Your task to perform on an android device: Search for sushi restaurants on Maps Image 0: 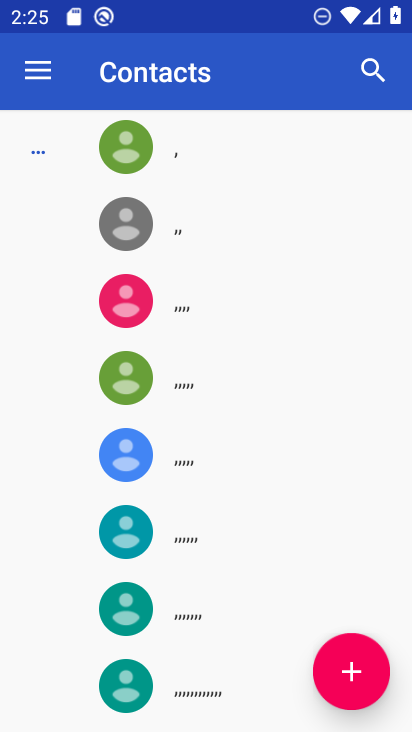
Step 0: press back button
Your task to perform on an android device: Search for sushi restaurants on Maps Image 1: 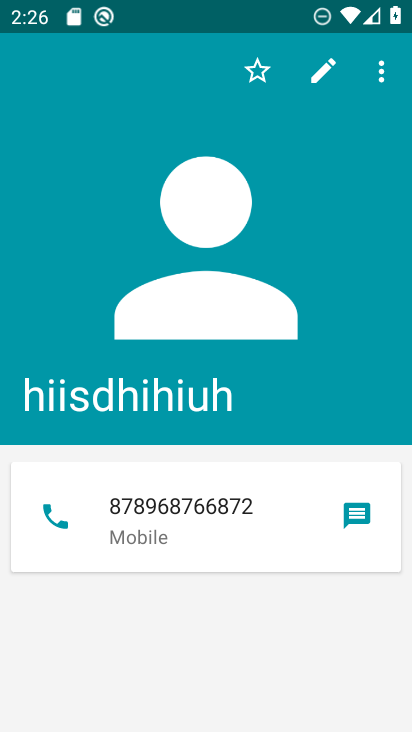
Step 1: press home button
Your task to perform on an android device: Search for sushi restaurants on Maps Image 2: 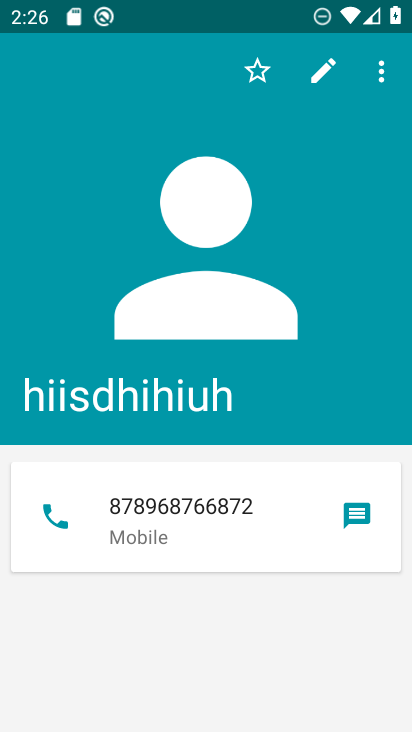
Step 2: press home button
Your task to perform on an android device: Search for sushi restaurants on Maps Image 3: 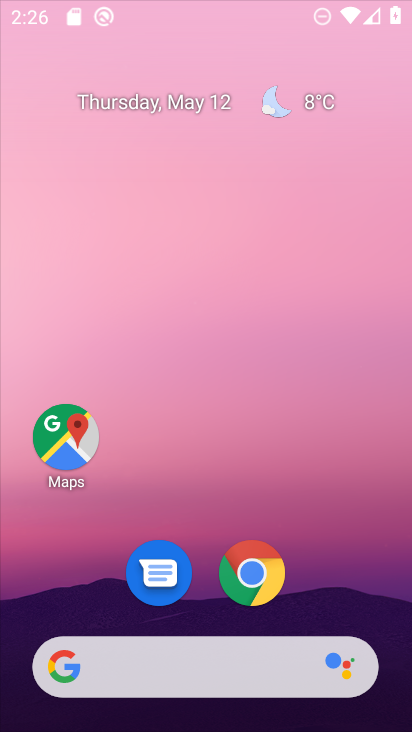
Step 3: press home button
Your task to perform on an android device: Search for sushi restaurants on Maps Image 4: 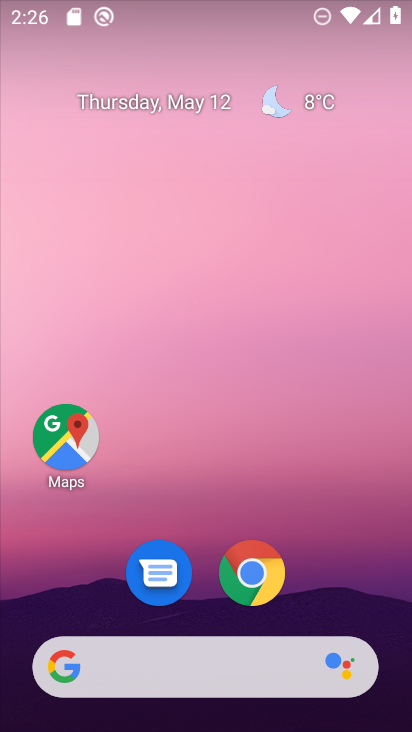
Step 4: drag from (333, 606) to (78, 4)
Your task to perform on an android device: Search for sushi restaurants on Maps Image 5: 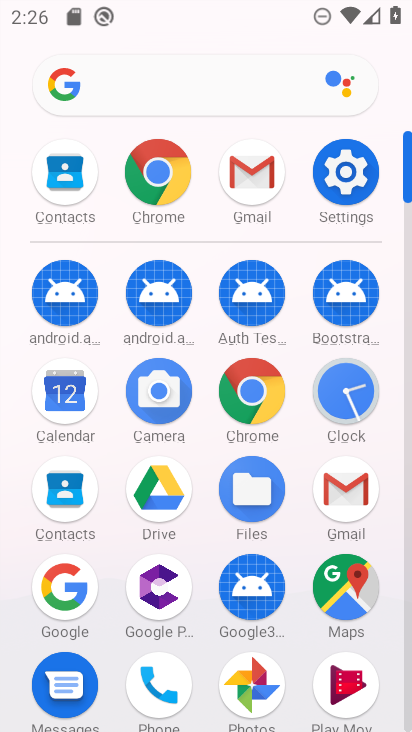
Step 5: click (351, 596)
Your task to perform on an android device: Search for sushi restaurants on Maps Image 6: 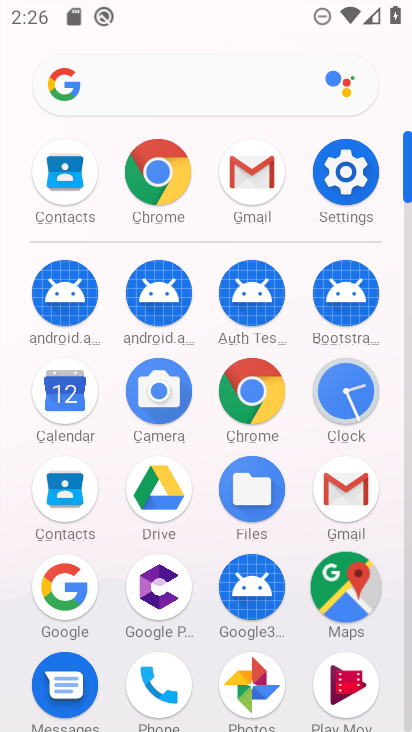
Step 6: click (349, 598)
Your task to perform on an android device: Search for sushi restaurants on Maps Image 7: 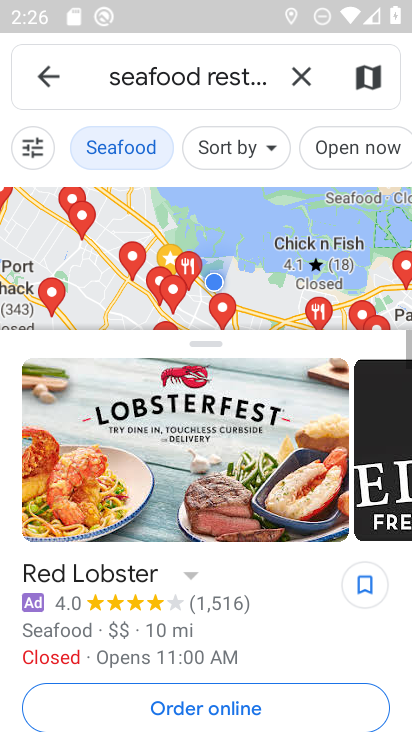
Step 7: click (306, 75)
Your task to perform on an android device: Search for sushi restaurants on Maps Image 8: 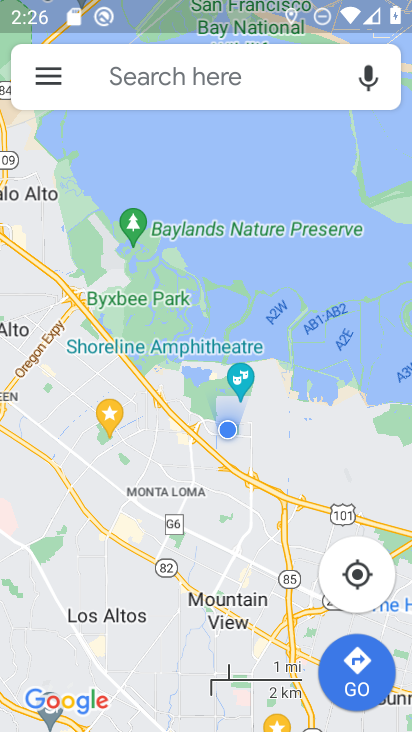
Step 8: click (129, 75)
Your task to perform on an android device: Search for sushi restaurants on Maps Image 9: 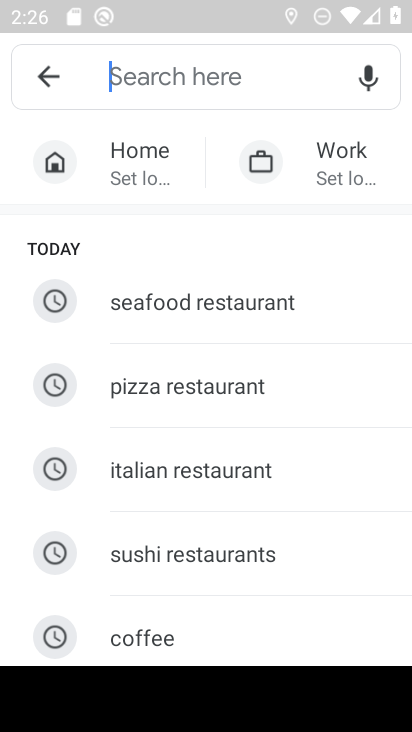
Step 9: click (246, 561)
Your task to perform on an android device: Search for sushi restaurants on Maps Image 10: 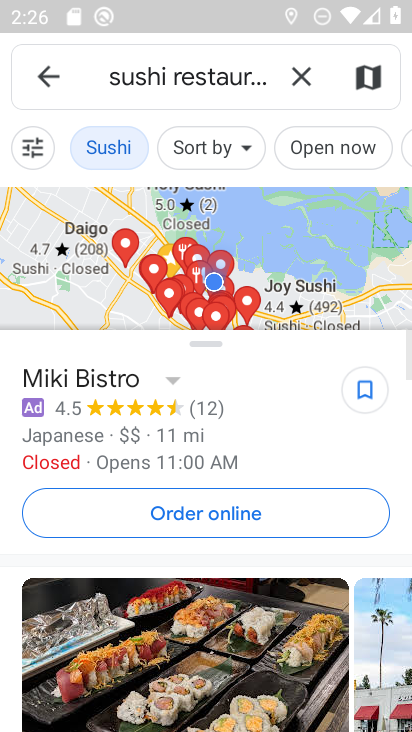
Step 10: task complete